Your task to perform on an android device: Is it going to rain tomorrow? Image 0: 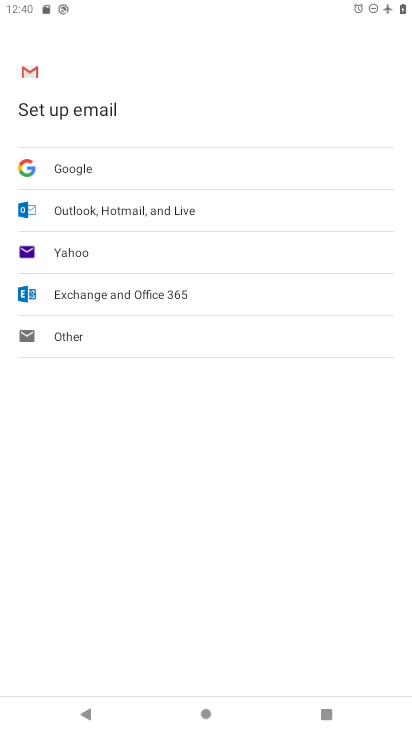
Step 0: press home button
Your task to perform on an android device: Is it going to rain tomorrow? Image 1: 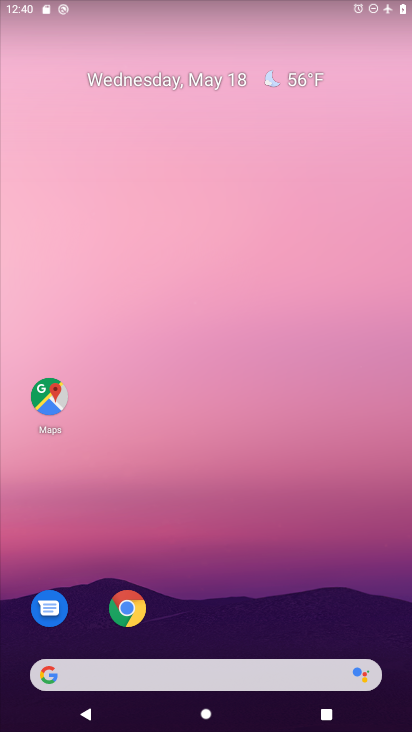
Step 1: drag from (189, 688) to (262, 105)
Your task to perform on an android device: Is it going to rain tomorrow? Image 2: 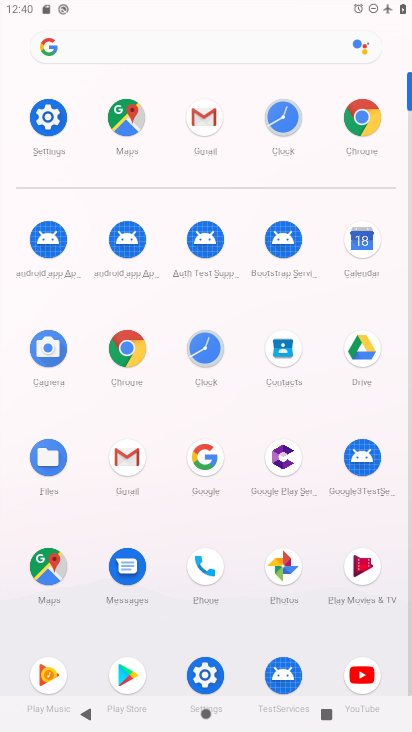
Step 2: click (109, 48)
Your task to perform on an android device: Is it going to rain tomorrow? Image 3: 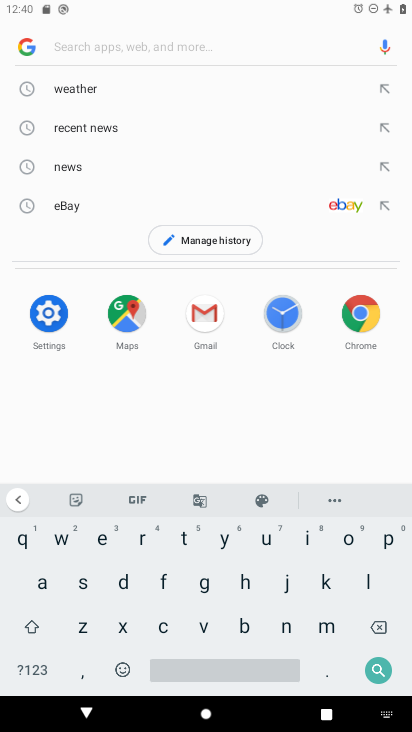
Step 3: click (105, 89)
Your task to perform on an android device: Is it going to rain tomorrow? Image 4: 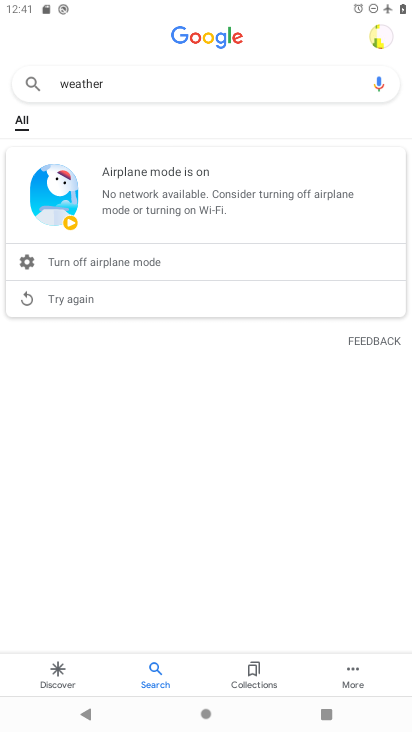
Step 4: press home button
Your task to perform on an android device: Is it going to rain tomorrow? Image 5: 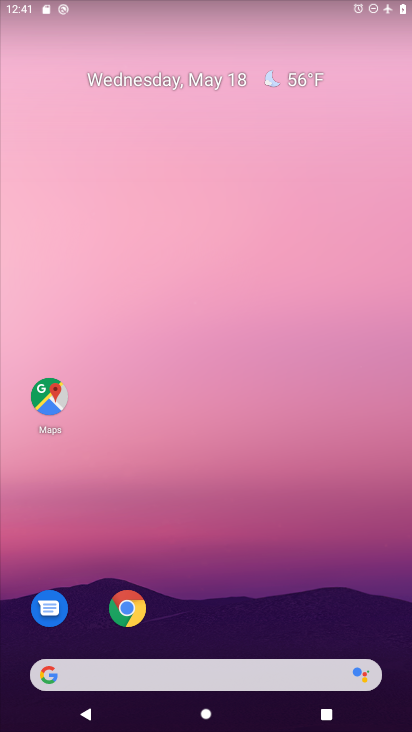
Step 5: drag from (271, 694) to (239, 211)
Your task to perform on an android device: Is it going to rain tomorrow? Image 6: 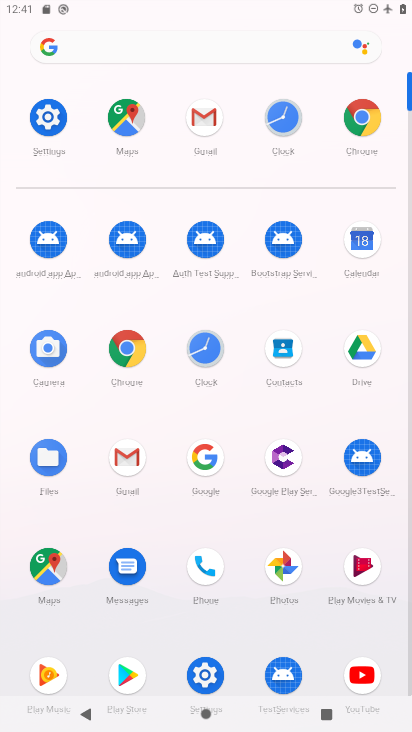
Step 6: click (46, 120)
Your task to perform on an android device: Is it going to rain tomorrow? Image 7: 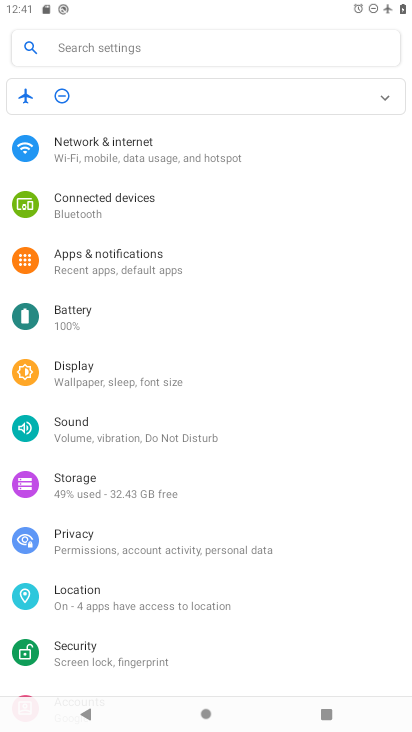
Step 7: click (393, 99)
Your task to perform on an android device: Is it going to rain tomorrow? Image 8: 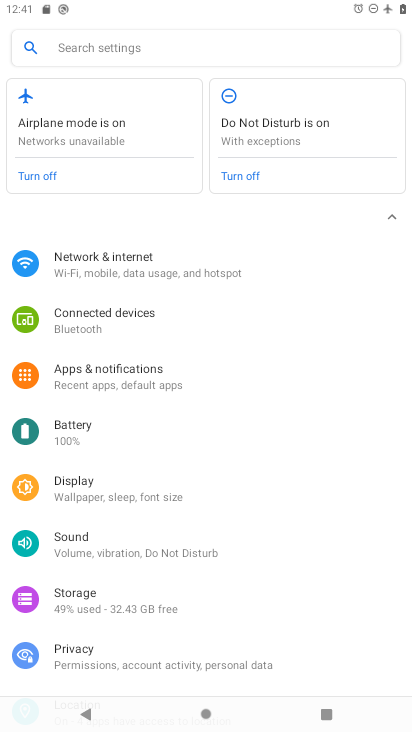
Step 8: click (52, 173)
Your task to perform on an android device: Is it going to rain tomorrow? Image 9: 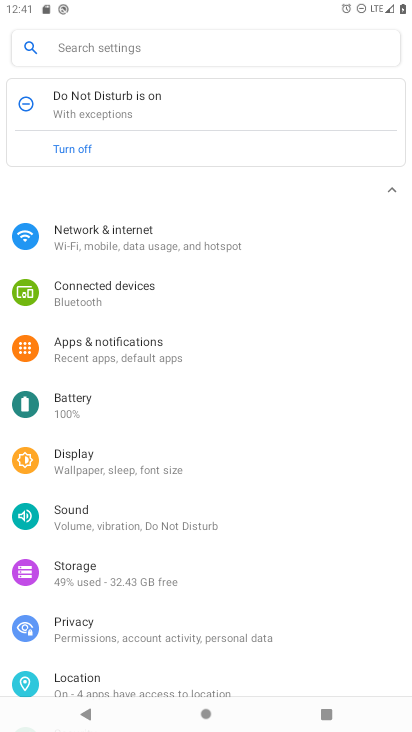
Step 9: press home button
Your task to perform on an android device: Is it going to rain tomorrow? Image 10: 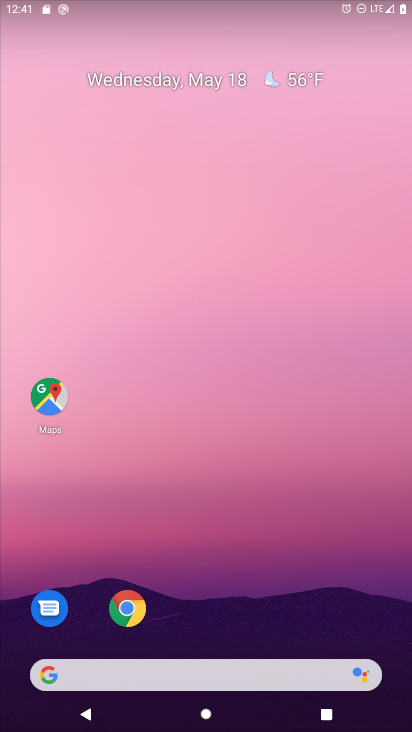
Step 10: drag from (209, 682) to (181, 177)
Your task to perform on an android device: Is it going to rain tomorrow? Image 11: 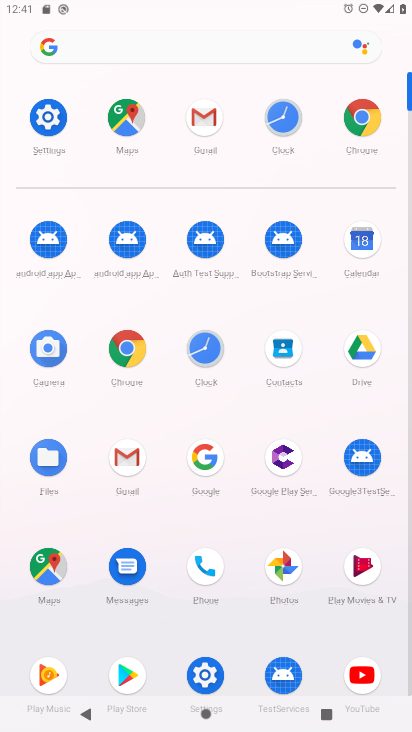
Step 11: click (123, 39)
Your task to perform on an android device: Is it going to rain tomorrow? Image 12: 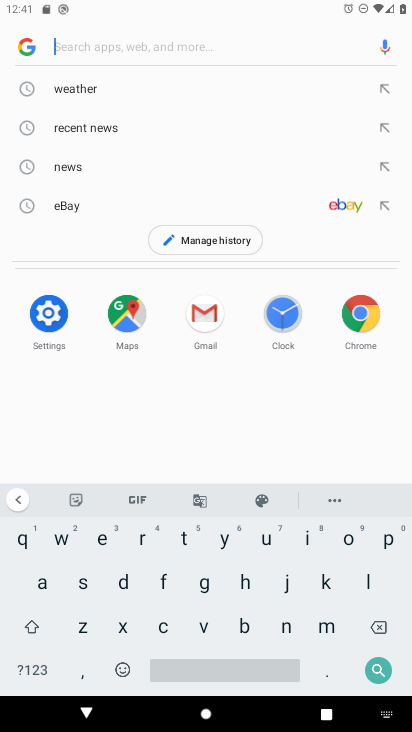
Step 12: click (78, 90)
Your task to perform on an android device: Is it going to rain tomorrow? Image 13: 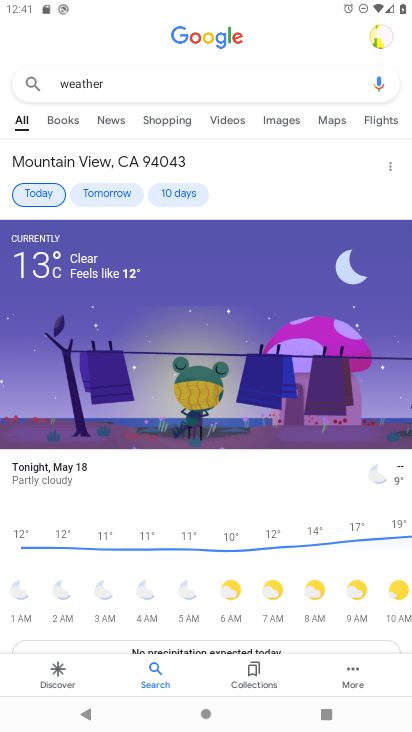
Step 13: task complete